Your task to perform on an android device: Open Google Chrome and click the shortcut for Amazon.com Image 0: 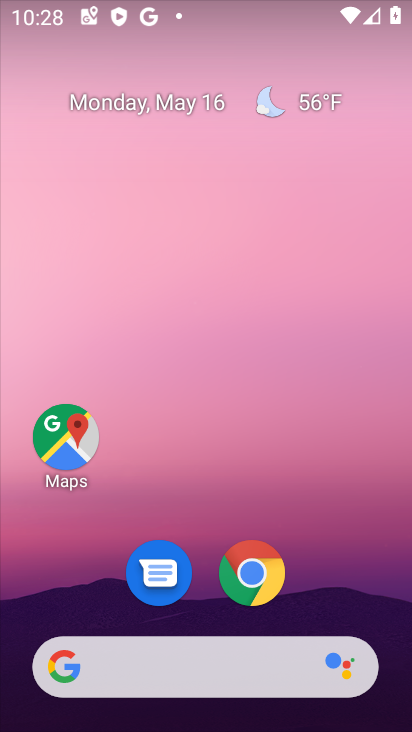
Step 0: click (269, 572)
Your task to perform on an android device: Open Google Chrome and click the shortcut for Amazon.com Image 1: 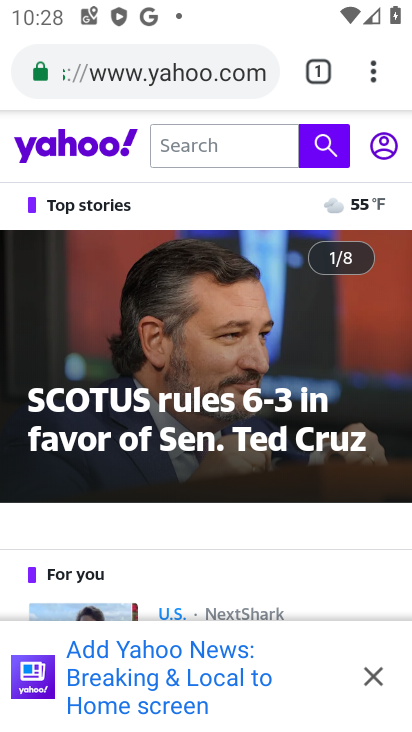
Step 1: click (317, 65)
Your task to perform on an android device: Open Google Chrome and click the shortcut for Amazon.com Image 2: 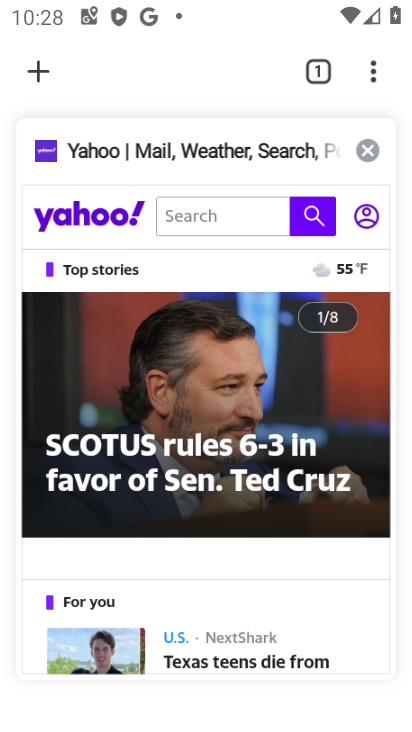
Step 2: click (372, 157)
Your task to perform on an android device: Open Google Chrome and click the shortcut for Amazon.com Image 3: 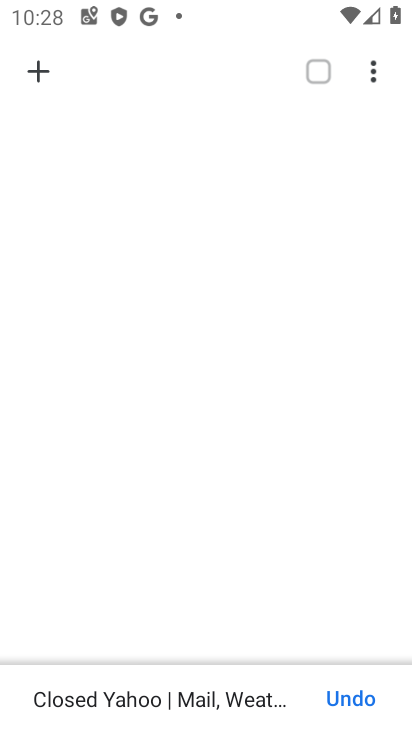
Step 3: click (43, 74)
Your task to perform on an android device: Open Google Chrome and click the shortcut for Amazon.com Image 4: 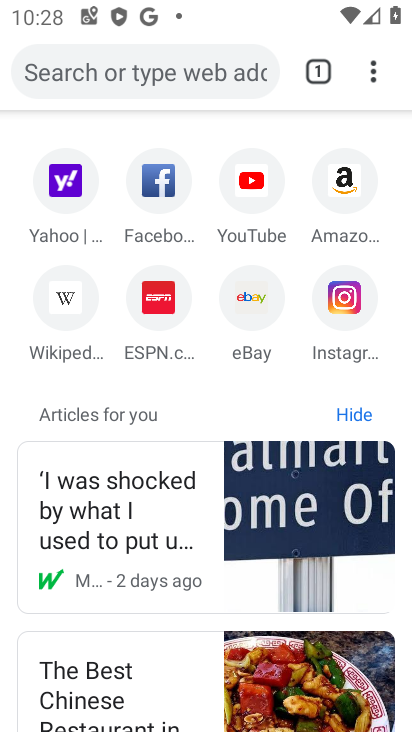
Step 4: click (337, 193)
Your task to perform on an android device: Open Google Chrome and click the shortcut for Amazon.com Image 5: 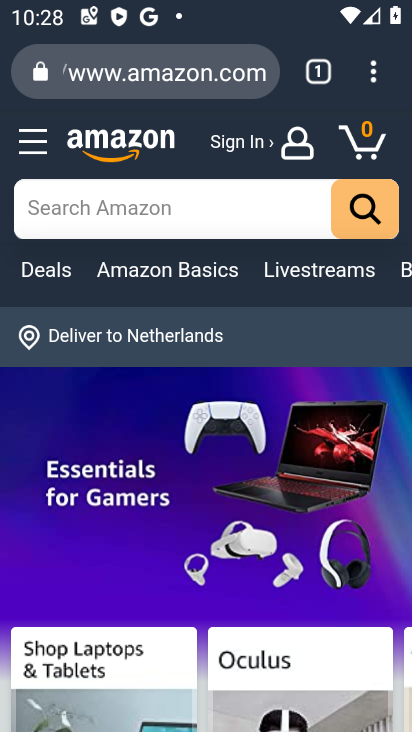
Step 5: task complete